Your task to perform on an android device: Go to Google Image 0: 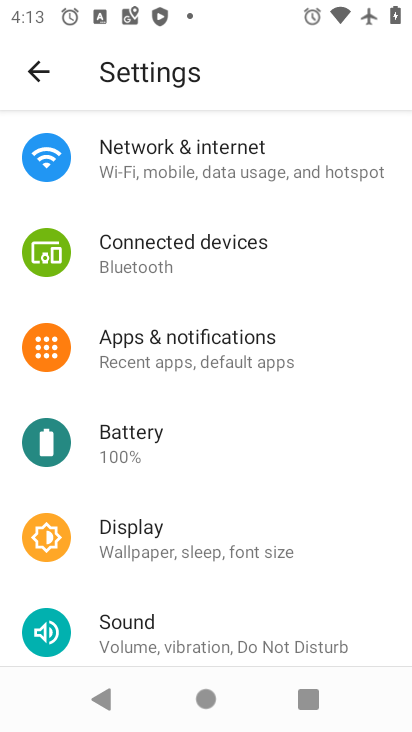
Step 0: press home button
Your task to perform on an android device: Go to Google Image 1: 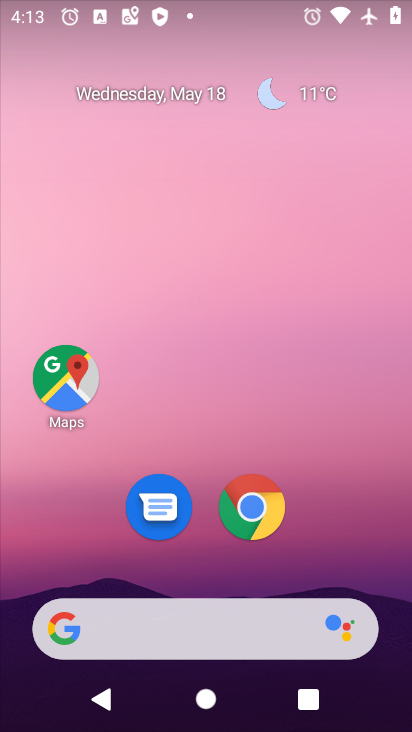
Step 1: click (253, 508)
Your task to perform on an android device: Go to Google Image 2: 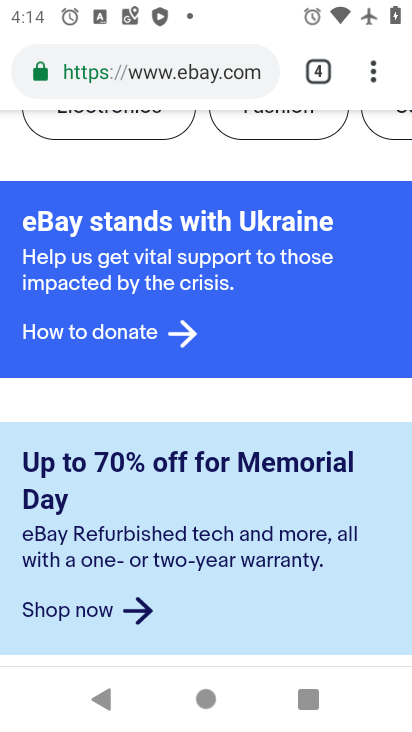
Step 2: task complete